Your task to perform on an android device: snooze an email in the gmail app Image 0: 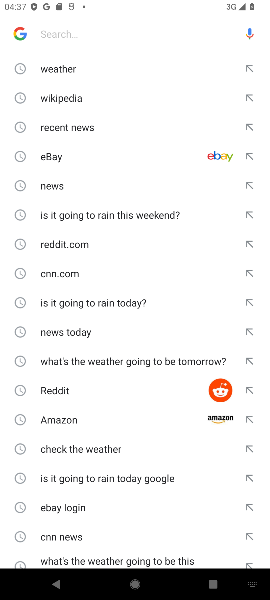
Step 0: press home button
Your task to perform on an android device: snooze an email in the gmail app Image 1: 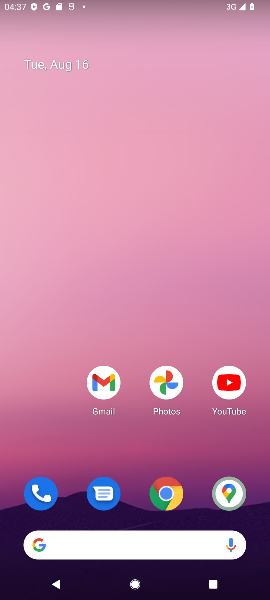
Step 1: drag from (74, 515) to (84, 115)
Your task to perform on an android device: snooze an email in the gmail app Image 2: 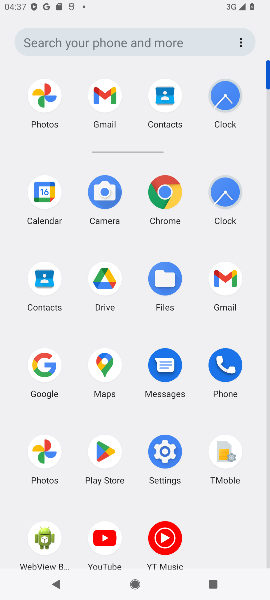
Step 2: click (225, 279)
Your task to perform on an android device: snooze an email in the gmail app Image 3: 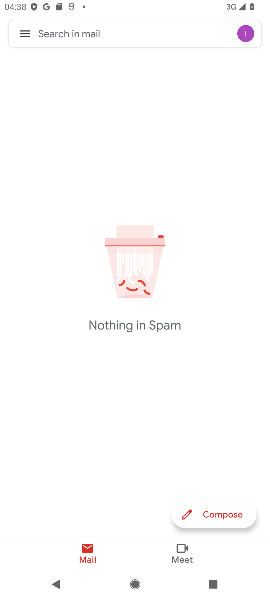
Step 3: click (25, 25)
Your task to perform on an android device: snooze an email in the gmail app Image 4: 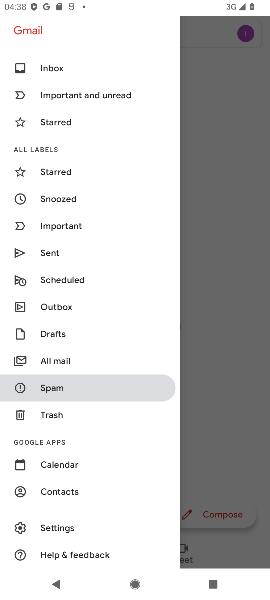
Step 4: click (72, 203)
Your task to perform on an android device: snooze an email in the gmail app Image 5: 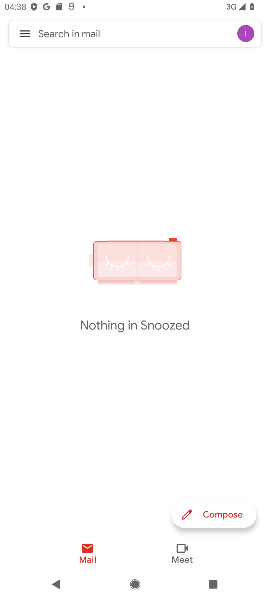
Step 5: task complete